Your task to perform on an android device: toggle data saver in the chrome app Image 0: 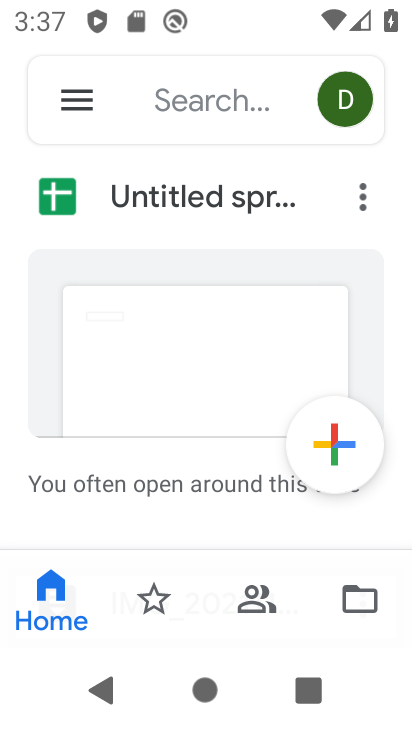
Step 0: press home button
Your task to perform on an android device: toggle data saver in the chrome app Image 1: 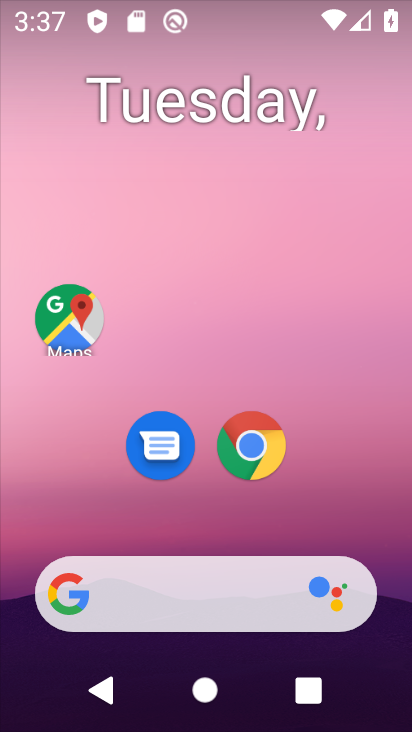
Step 1: click (261, 443)
Your task to perform on an android device: toggle data saver in the chrome app Image 2: 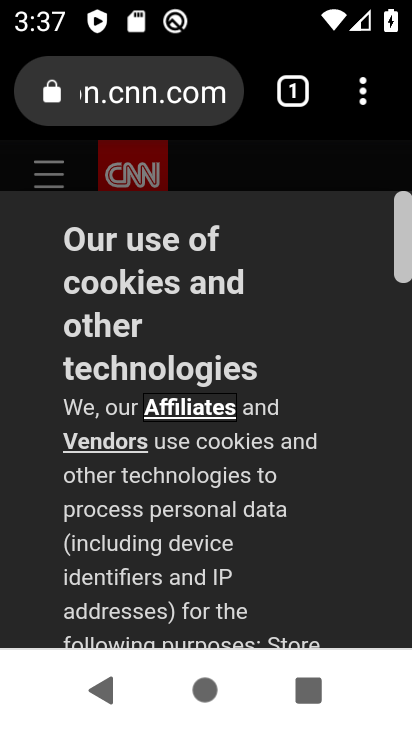
Step 2: click (362, 102)
Your task to perform on an android device: toggle data saver in the chrome app Image 3: 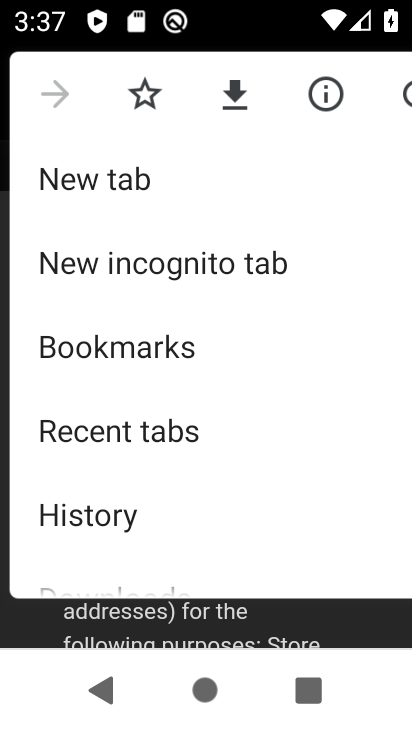
Step 3: drag from (236, 530) to (249, 324)
Your task to perform on an android device: toggle data saver in the chrome app Image 4: 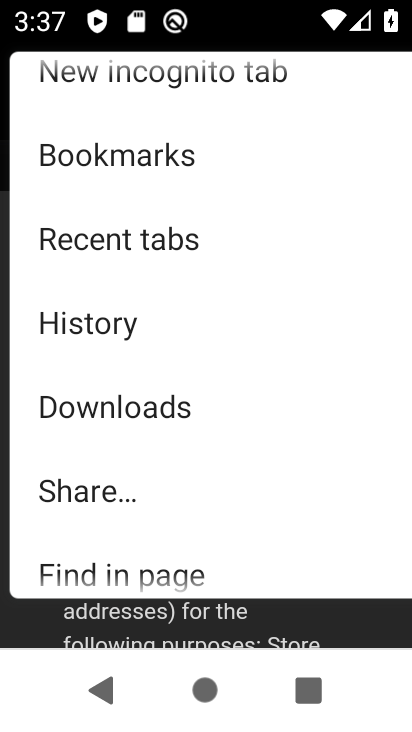
Step 4: drag from (192, 521) to (195, 288)
Your task to perform on an android device: toggle data saver in the chrome app Image 5: 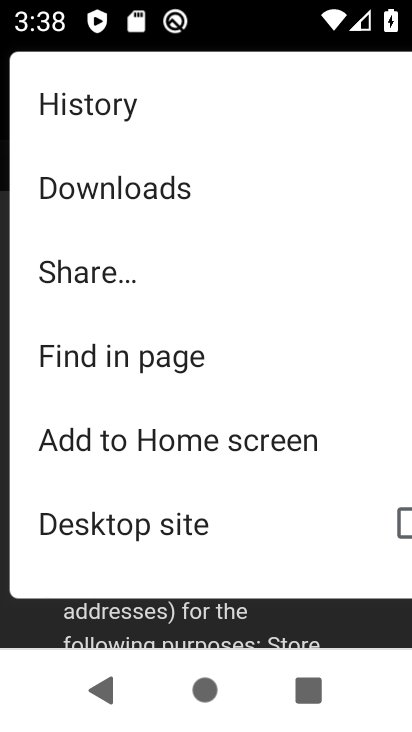
Step 5: drag from (247, 554) to (252, 309)
Your task to perform on an android device: toggle data saver in the chrome app Image 6: 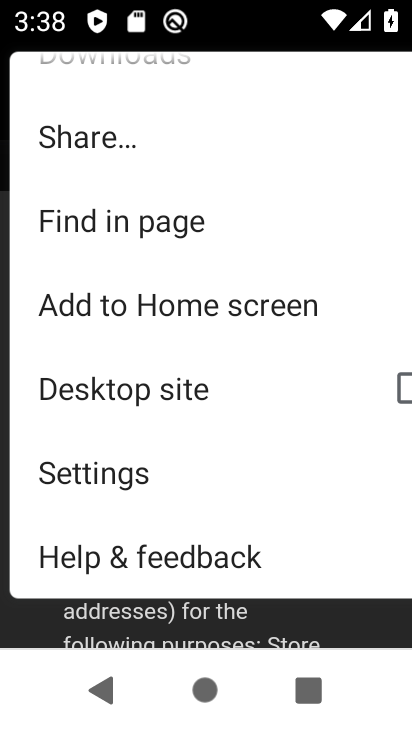
Step 6: click (165, 478)
Your task to perform on an android device: toggle data saver in the chrome app Image 7: 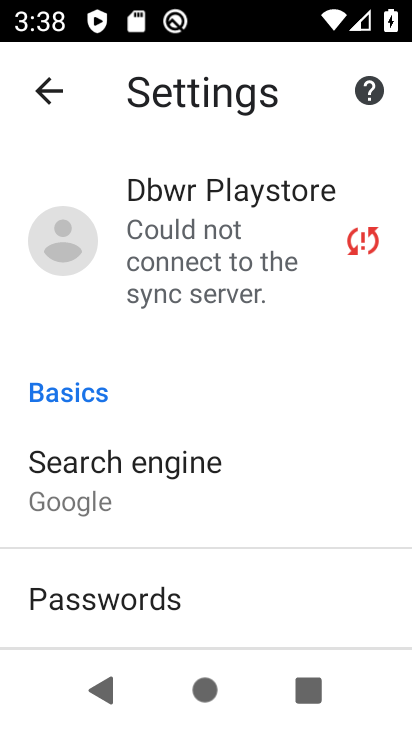
Step 7: drag from (273, 560) to (216, 309)
Your task to perform on an android device: toggle data saver in the chrome app Image 8: 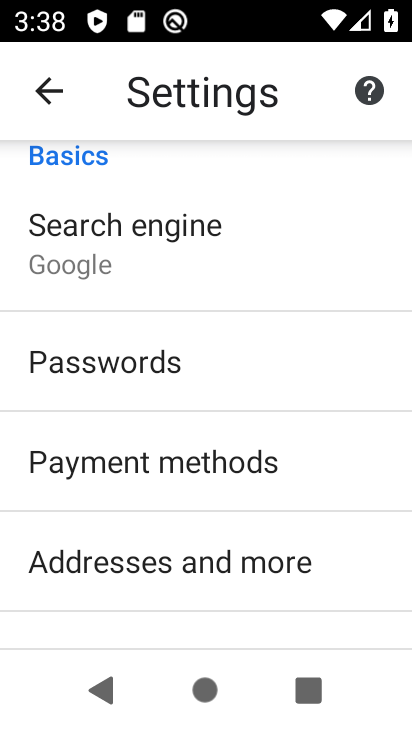
Step 8: drag from (310, 598) to (271, 291)
Your task to perform on an android device: toggle data saver in the chrome app Image 9: 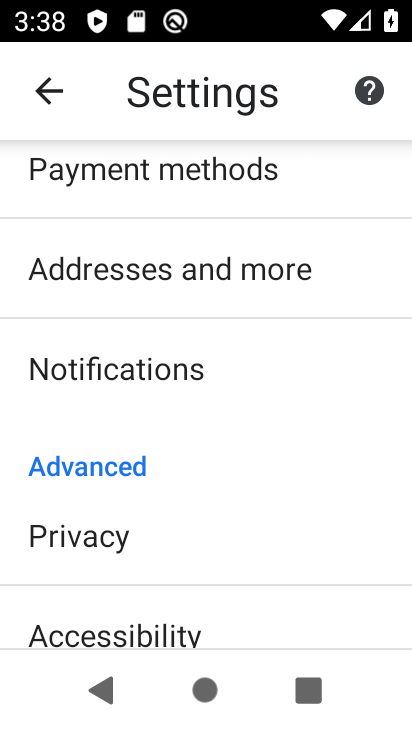
Step 9: drag from (308, 537) to (264, 218)
Your task to perform on an android device: toggle data saver in the chrome app Image 10: 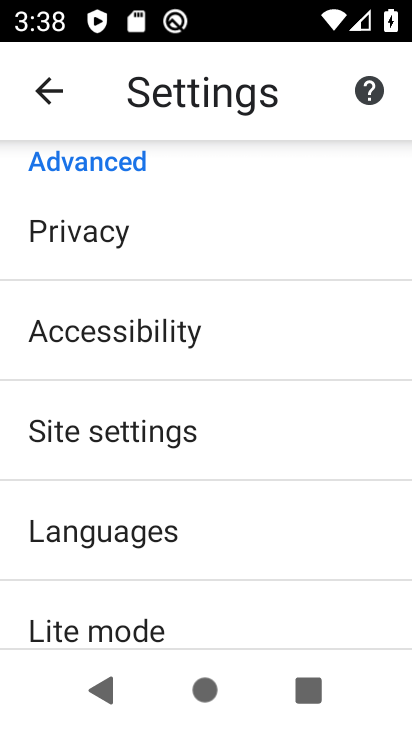
Step 10: drag from (210, 570) to (208, 321)
Your task to perform on an android device: toggle data saver in the chrome app Image 11: 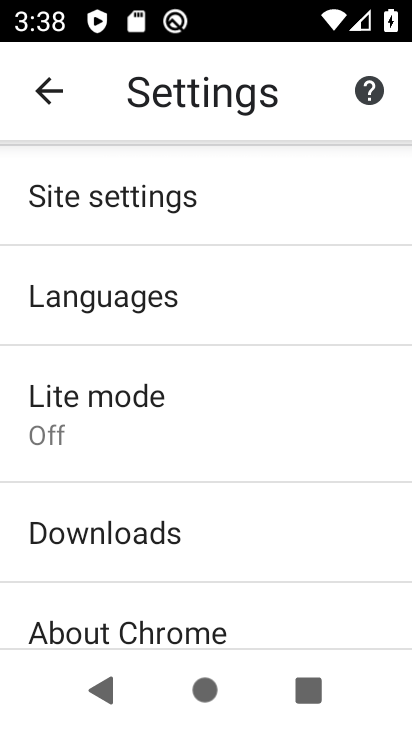
Step 11: drag from (242, 560) to (235, 294)
Your task to perform on an android device: toggle data saver in the chrome app Image 12: 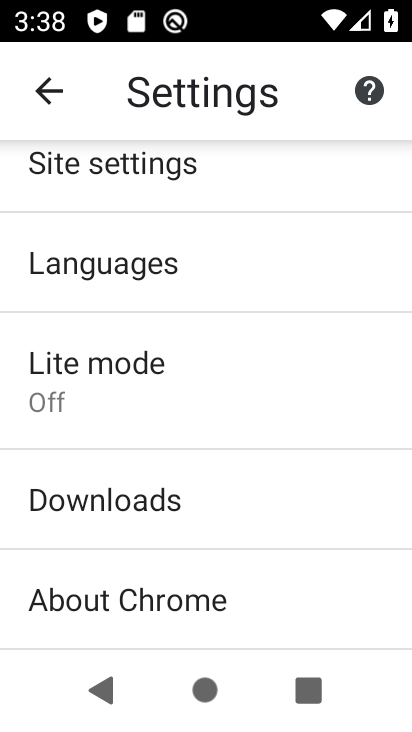
Step 12: click (199, 336)
Your task to perform on an android device: toggle data saver in the chrome app Image 13: 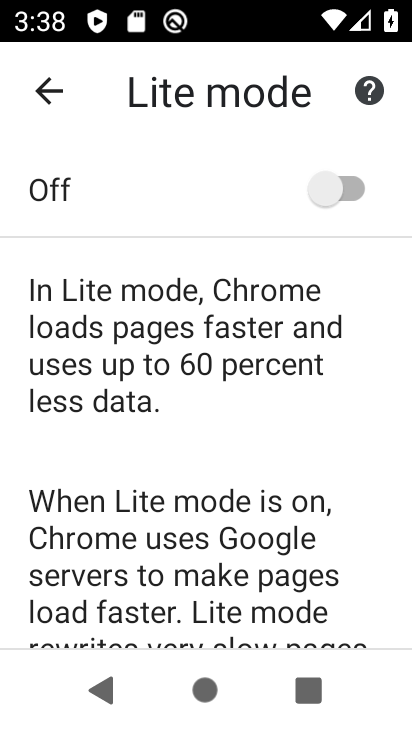
Step 13: click (347, 186)
Your task to perform on an android device: toggle data saver in the chrome app Image 14: 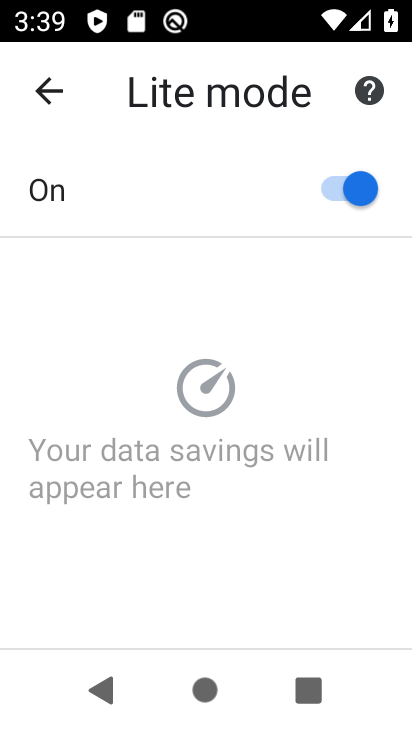
Step 14: task complete